Your task to perform on an android device: Show me the alarms in the clock app Image 0: 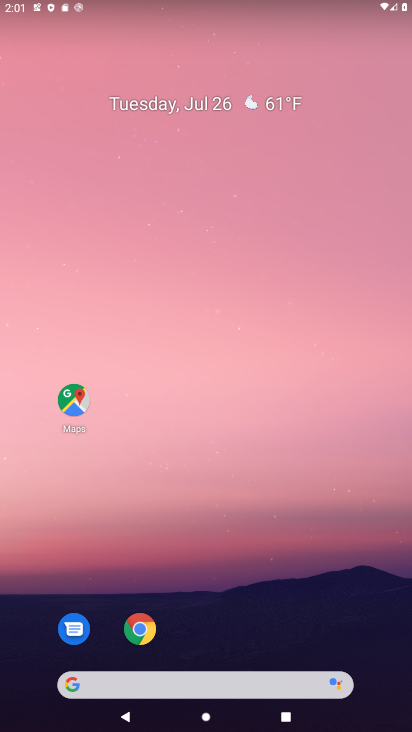
Step 0: drag from (191, 632) to (176, 52)
Your task to perform on an android device: Show me the alarms in the clock app Image 1: 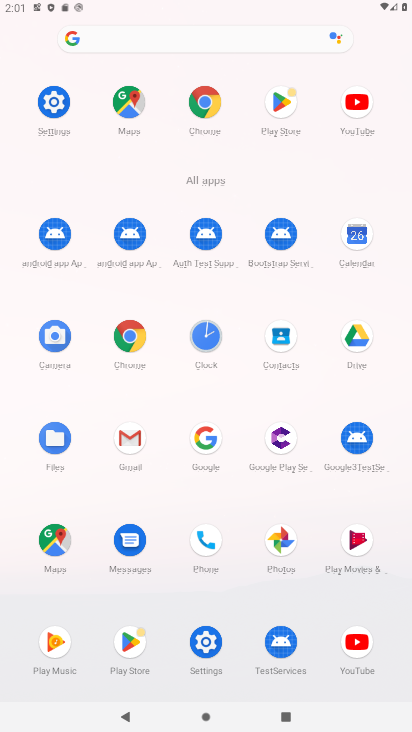
Step 1: click (221, 336)
Your task to perform on an android device: Show me the alarms in the clock app Image 2: 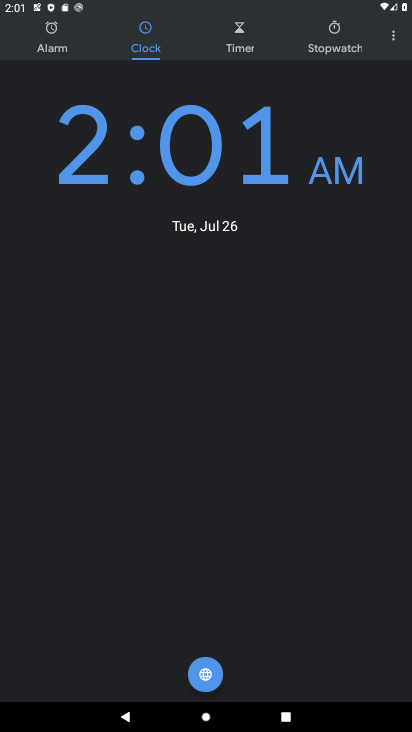
Step 2: click (43, 41)
Your task to perform on an android device: Show me the alarms in the clock app Image 3: 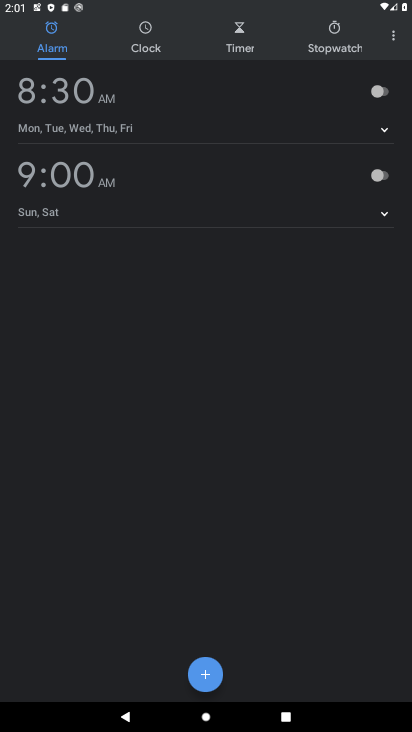
Step 3: task complete